Your task to perform on an android device: Open location settings Image 0: 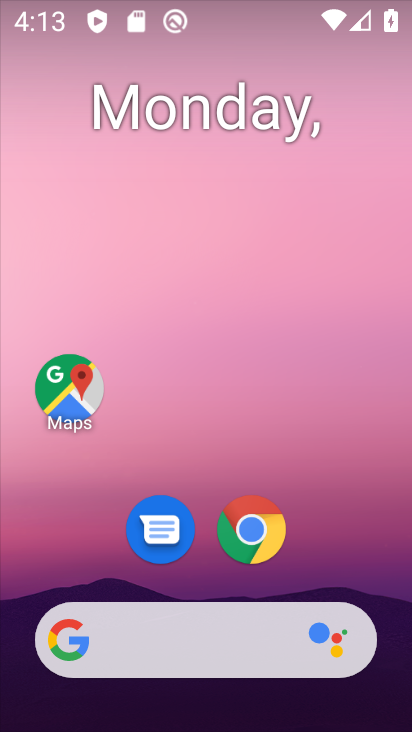
Step 0: drag from (197, 595) to (240, 143)
Your task to perform on an android device: Open location settings Image 1: 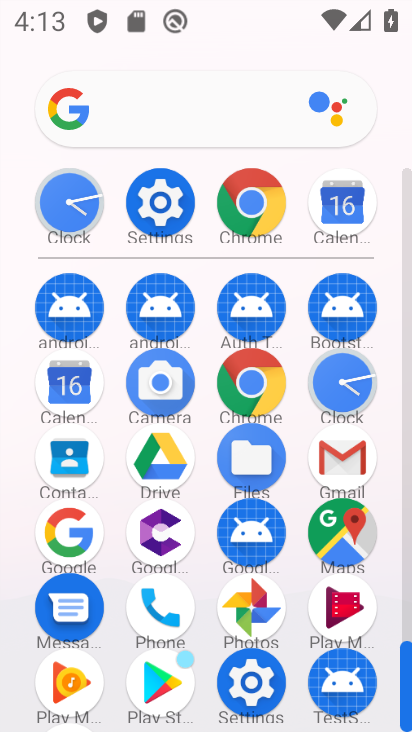
Step 1: click (241, 681)
Your task to perform on an android device: Open location settings Image 2: 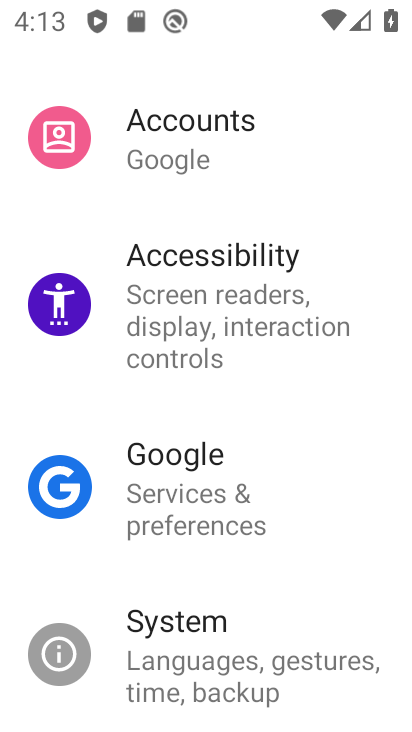
Step 2: drag from (212, 564) to (258, 290)
Your task to perform on an android device: Open location settings Image 3: 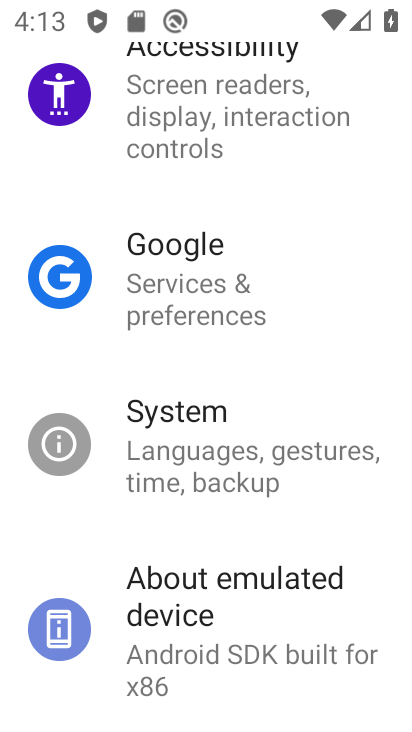
Step 3: drag from (194, 413) to (196, 659)
Your task to perform on an android device: Open location settings Image 4: 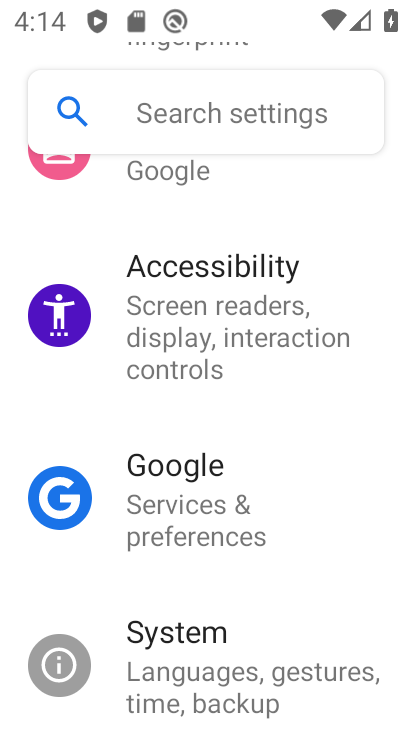
Step 4: drag from (204, 643) to (193, 729)
Your task to perform on an android device: Open location settings Image 5: 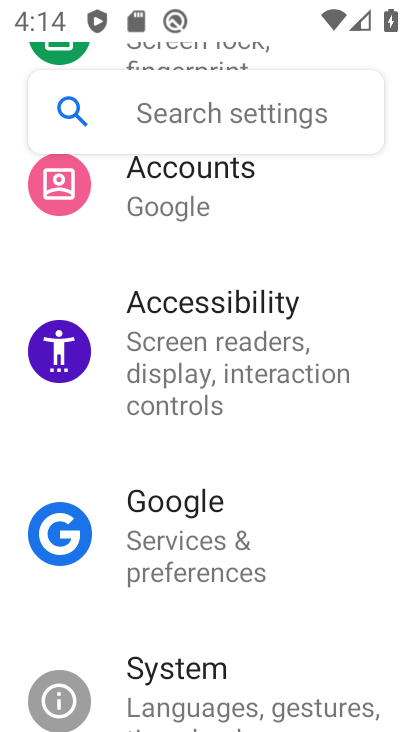
Step 5: drag from (196, 395) to (185, 728)
Your task to perform on an android device: Open location settings Image 6: 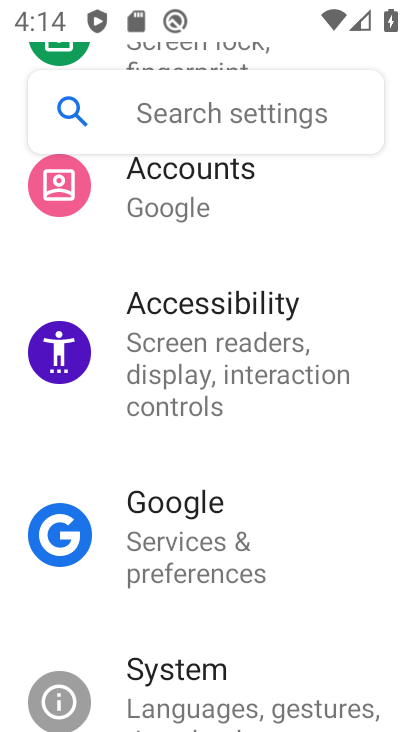
Step 6: click (198, 730)
Your task to perform on an android device: Open location settings Image 7: 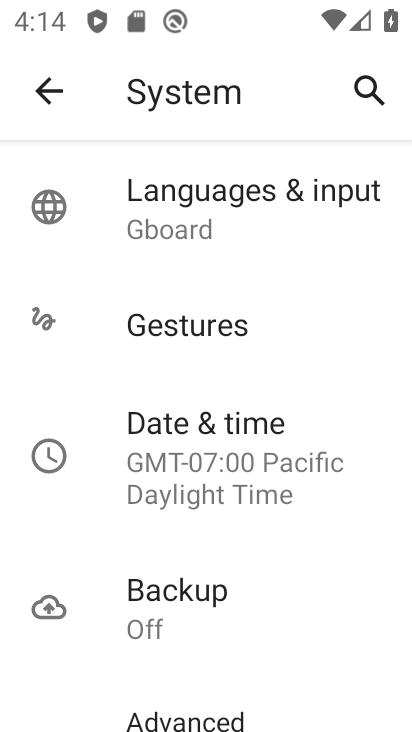
Step 7: click (47, 92)
Your task to perform on an android device: Open location settings Image 8: 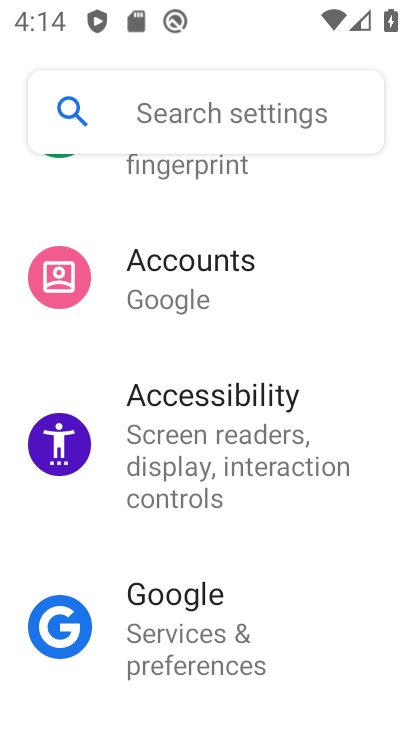
Step 8: drag from (231, 289) to (184, 729)
Your task to perform on an android device: Open location settings Image 9: 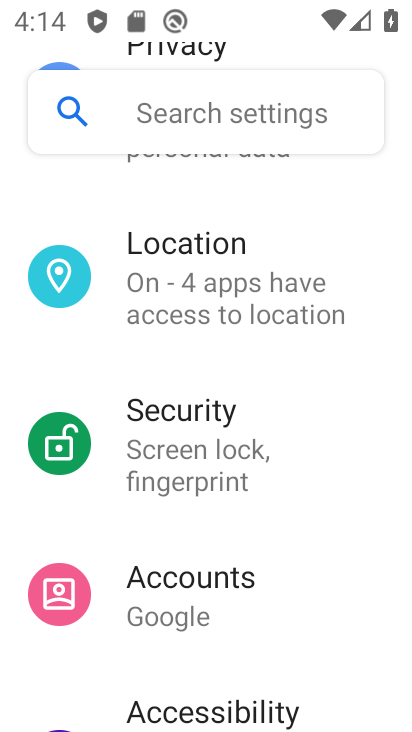
Step 9: click (262, 297)
Your task to perform on an android device: Open location settings Image 10: 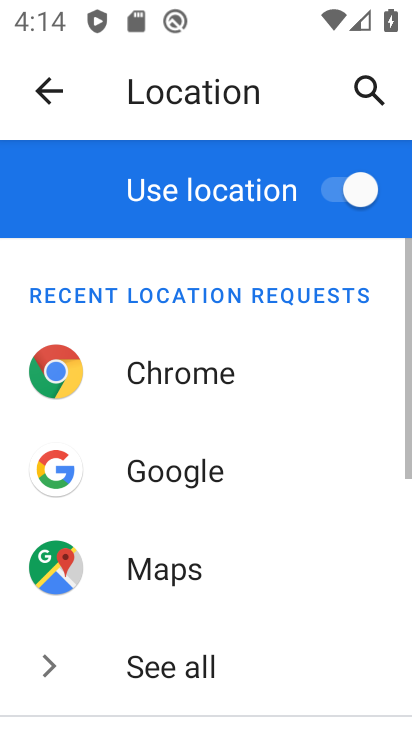
Step 10: task complete